Your task to perform on an android device: Go to notification settings Image 0: 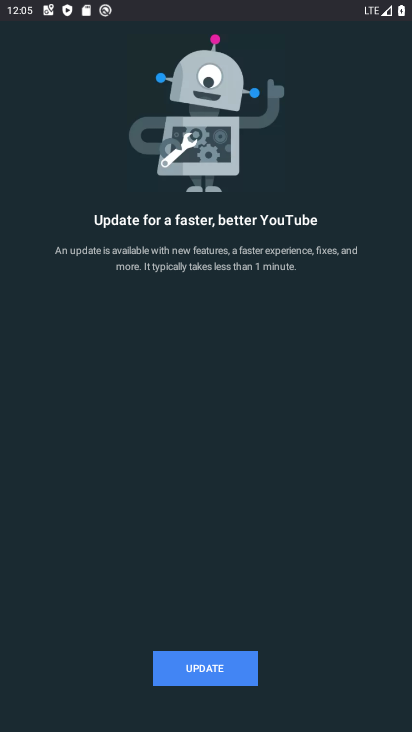
Step 0: press back button
Your task to perform on an android device: Go to notification settings Image 1: 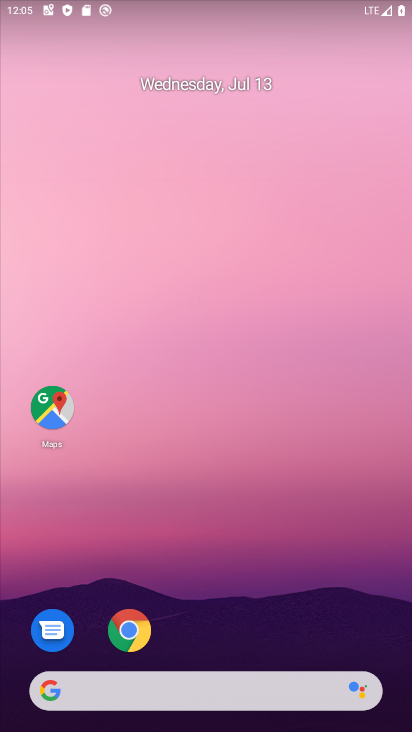
Step 1: drag from (377, 631) to (278, 21)
Your task to perform on an android device: Go to notification settings Image 2: 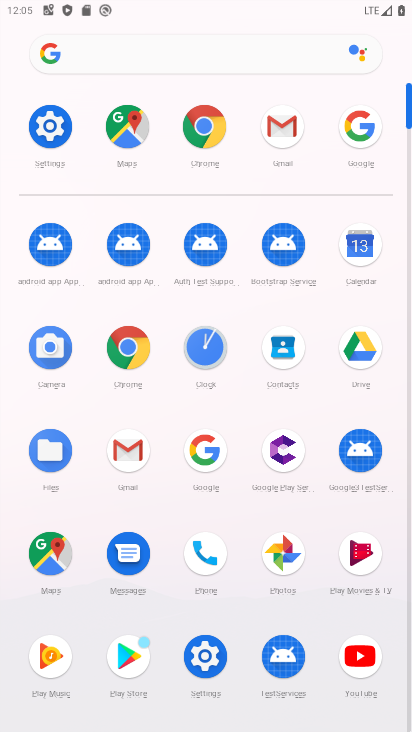
Step 2: click (54, 136)
Your task to perform on an android device: Go to notification settings Image 3: 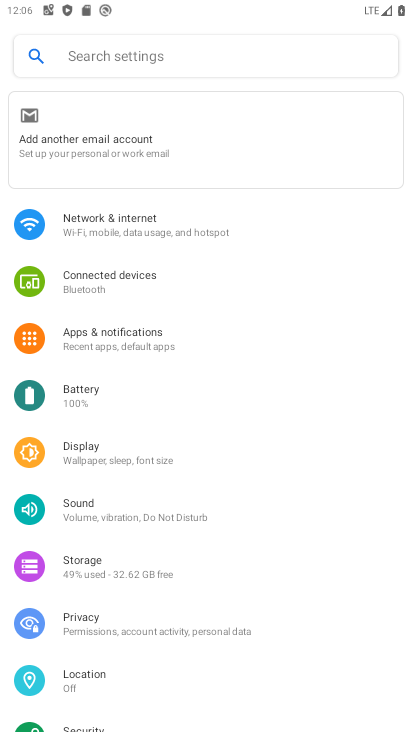
Step 3: click (173, 339)
Your task to perform on an android device: Go to notification settings Image 4: 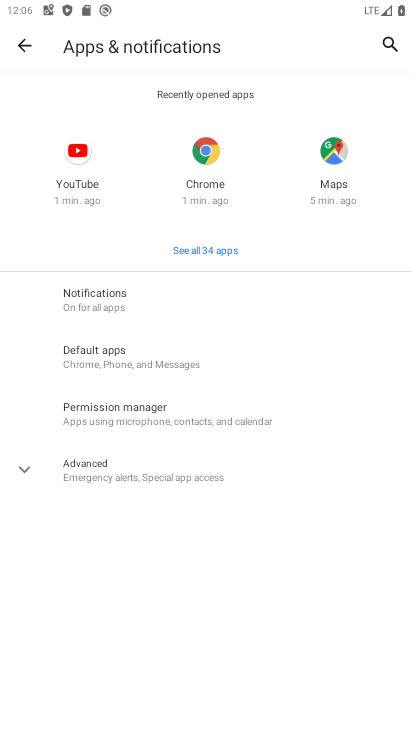
Step 4: click (118, 301)
Your task to perform on an android device: Go to notification settings Image 5: 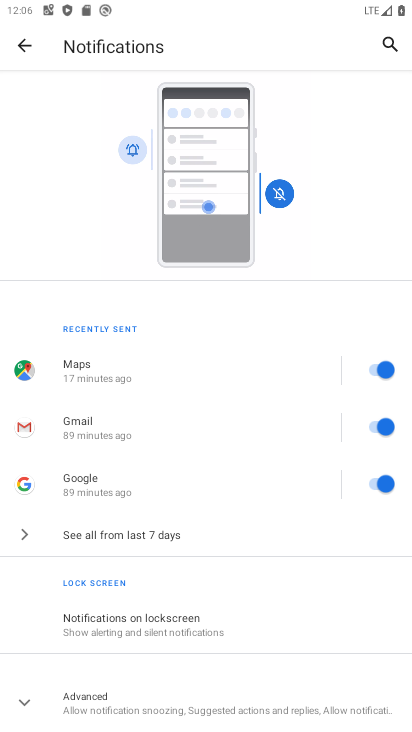
Step 5: task complete